Your task to perform on an android device: Open Youtube and go to the subscriptions tab Image 0: 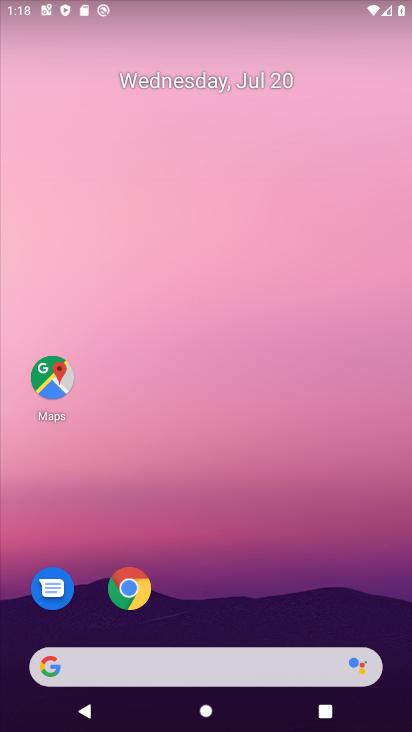
Step 0: drag from (400, 670) to (343, 75)
Your task to perform on an android device: Open Youtube and go to the subscriptions tab Image 1: 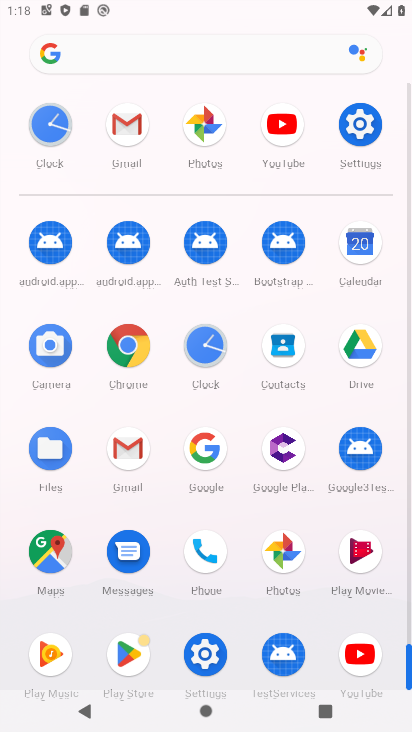
Step 1: click (355, 657)
Your task to perform on an android device: Open Youtube and go to the subscriptions tab Image 2: 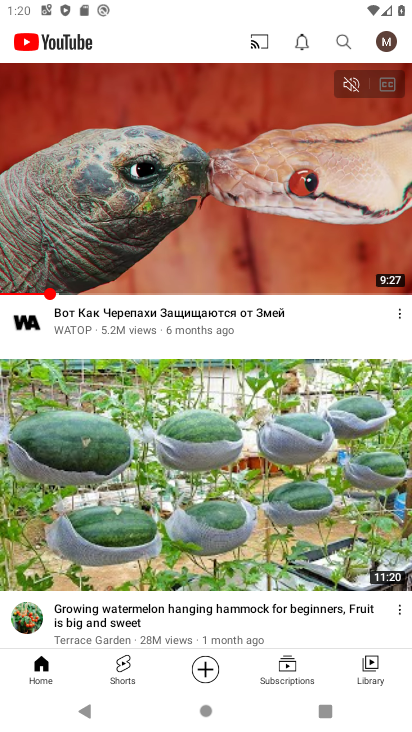
Step 2: click (275, 678)
Your task to perform on an android device: Open Youtube and go to the subscriptions tab Image 3: 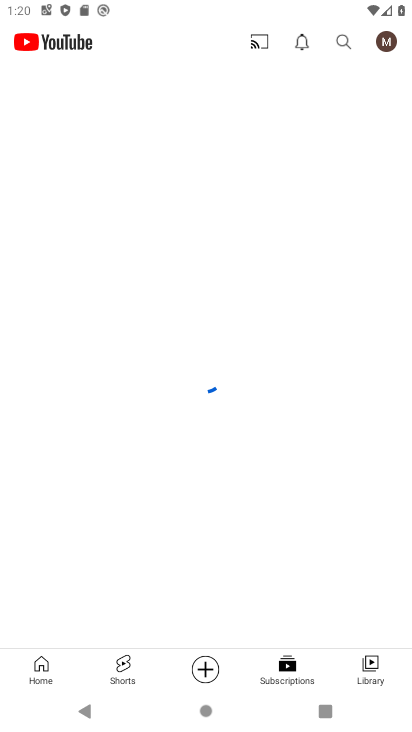
Step 3: task complete